Your task to perform on an android device: Open calendar and show me the third week of next month Image 0: 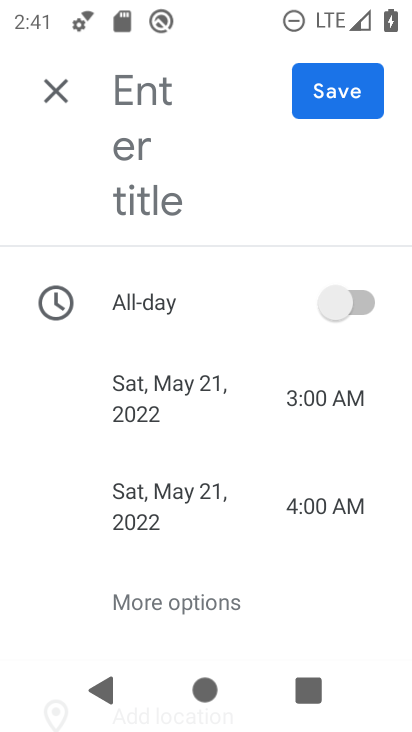
Step 0: click (52, 80)
Your task to perform on an android device: Open calendar and show me the third week of next month Image 1: 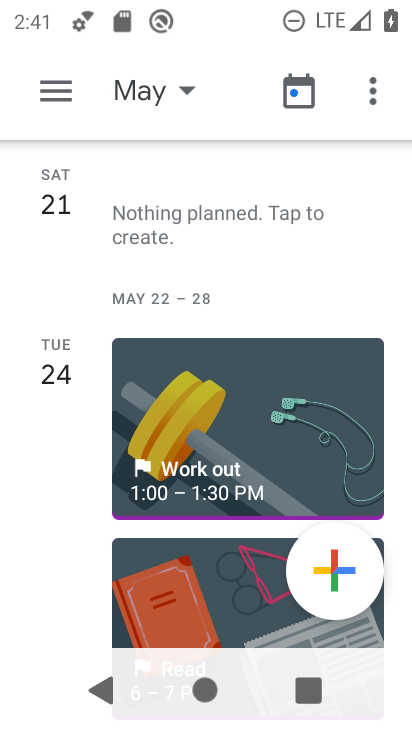
Step 1: click (190, 85)
Your task to perform on an android device: Open calendar and show me the third week of next month Image 2: 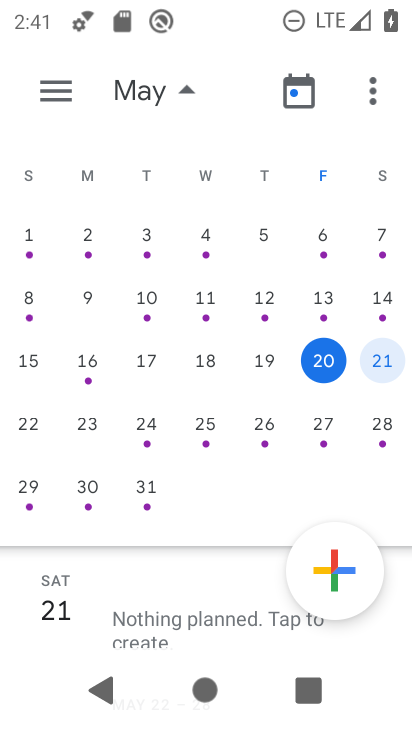
Step 2: drag from (304, 295) to (23, 319)
Your task to perform on an android device: Open calendar and show me the third week of next month Image 3: 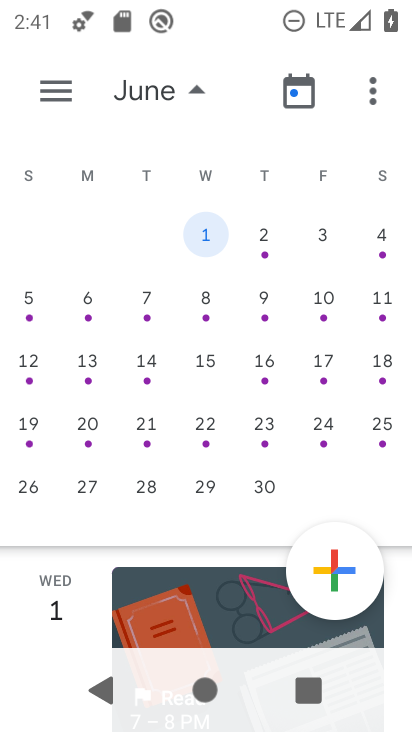
Step 3: click (49, 102)
Your task to perform on an android device: Open calendar and show me the third week of next month Image 4: 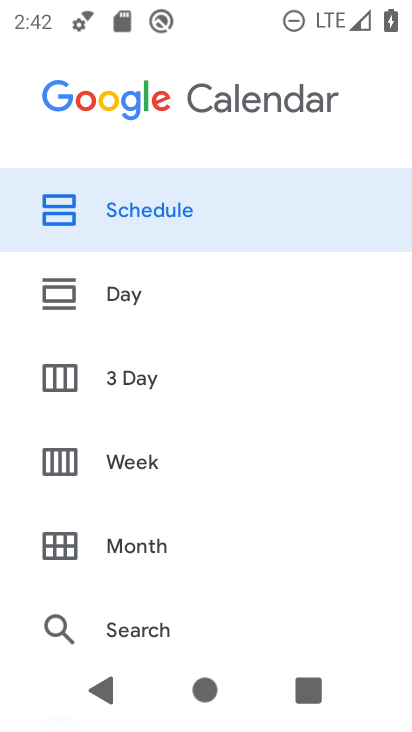
Step 4: click (114, 463)
Your task to perform on an android device: Open calendar and show me the third week of next month Image 5: 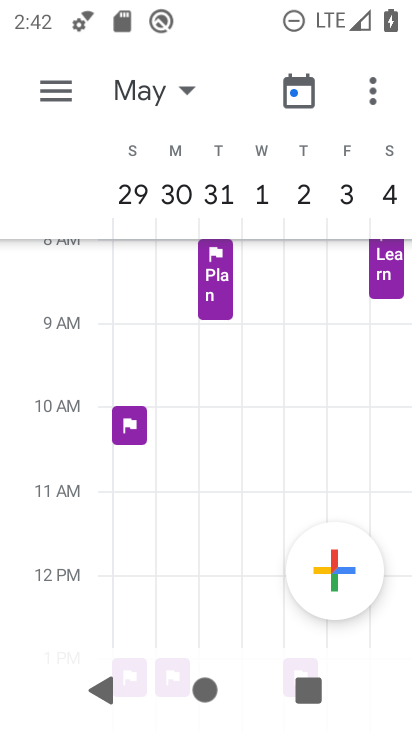
Step 5: task complete